Your task to perform on an android device: When is my next appointment? Image 0: 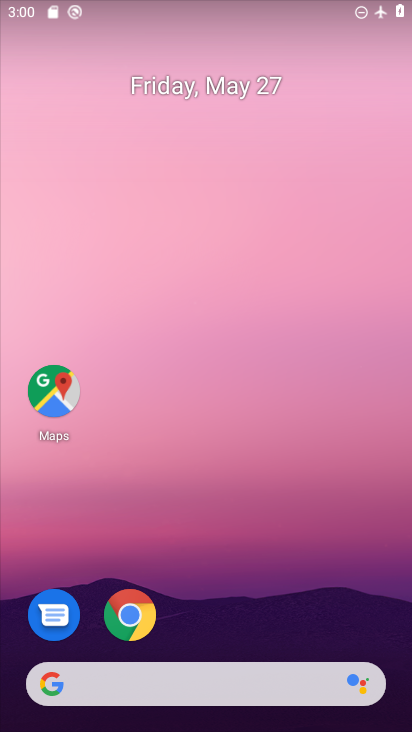
Step 0: drag from (276, 284) to (168, 68)
Your task to perform on an android device: When is my next appointment? Image 1: 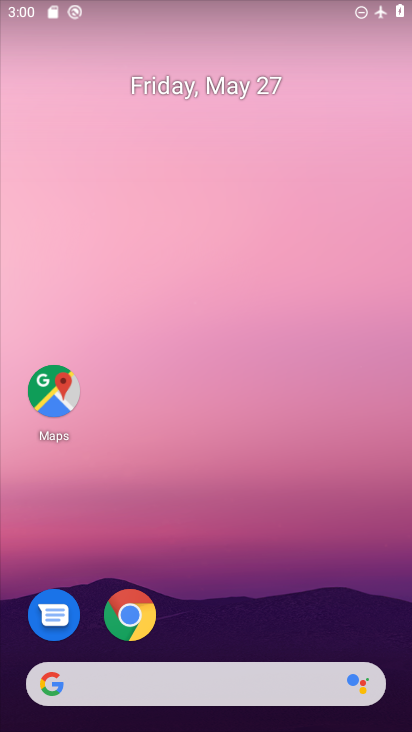
Step 1: drag from (269, 554) to (127, 40)
Your task to perform on an android device: When is my next appointment? Image 2: 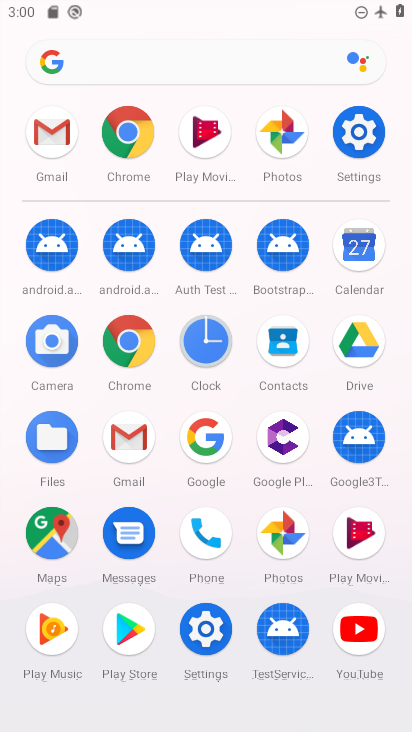
Step 2: click (349, 260)
Your task to perform on an android device: When is my next appointment? Image 3: 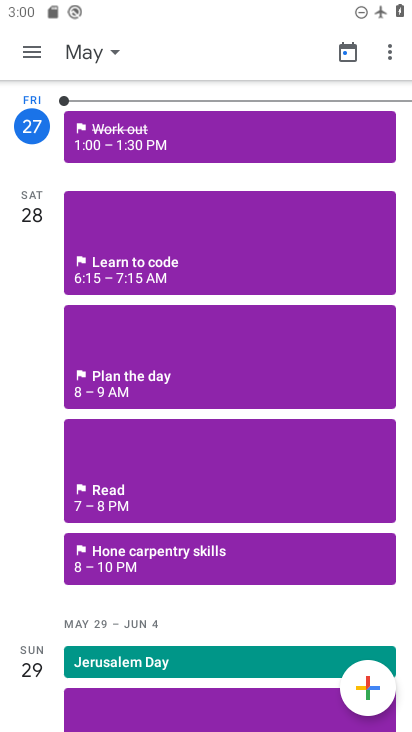
Step 3: task complete